Your task to perform on an android device: Turn on the flashlight Image 0: 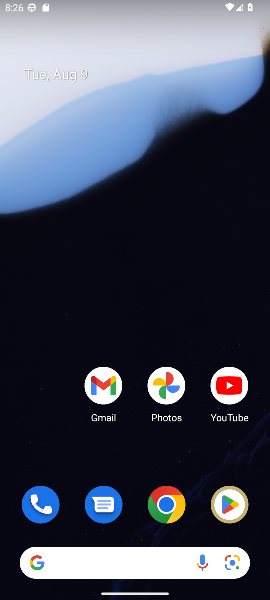
Step 0: drag from (142, 481) to (142, 185)
Your task to perform on an android device: Turn on the flashlight Image 1: 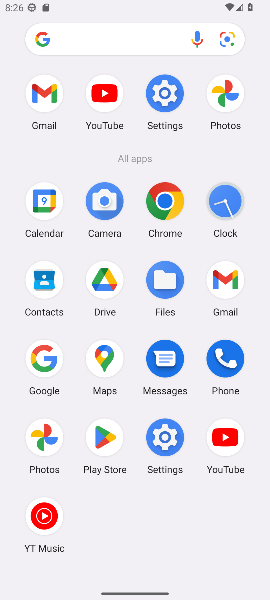
Step 1: click (165, 437)
Your task to perform on an android device: Turn on the flashlight Image 2: 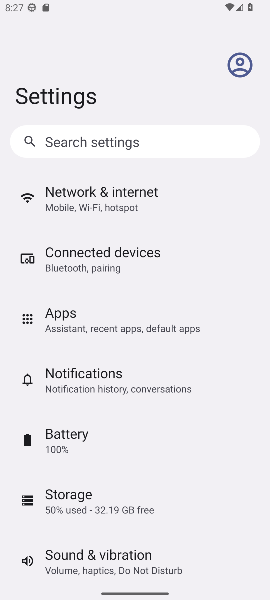
Step 2: drag from (156, 467) to (156, 206)
Your task to perform on an android device: Turn on the flashlight Image 3: 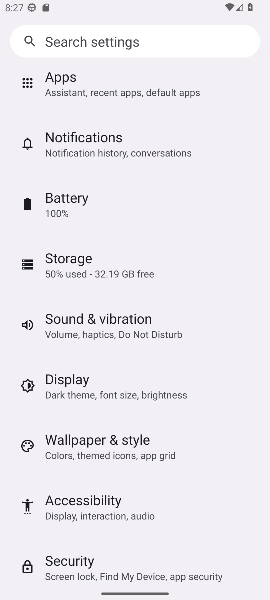
Step 3: click (67, 374)
Your task to perform on an android device: Turn on the flashlight Image 4: 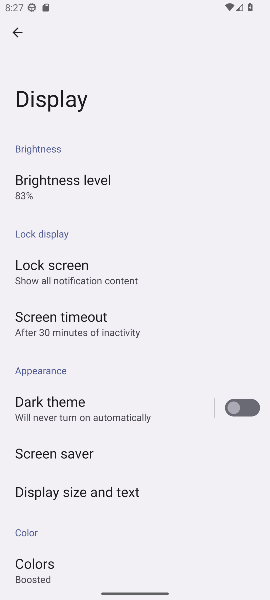
Step 4: task complete